Your task to perform on an android device: Go to Google Image 0: 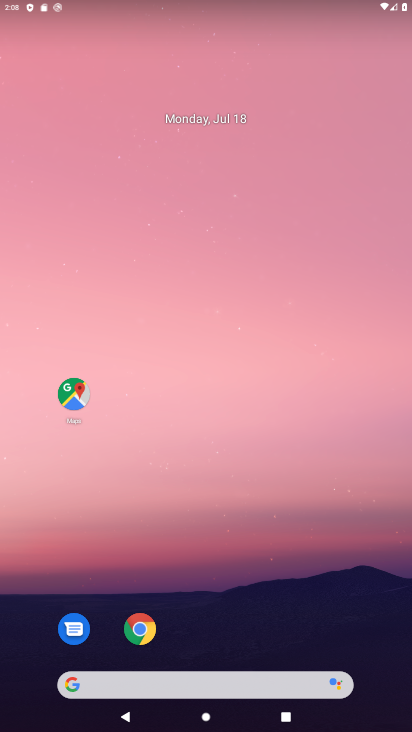
Step 0: drag from (226, 616) to (264, 215)
Your task to perform on an android device: Go to Google Image 1: 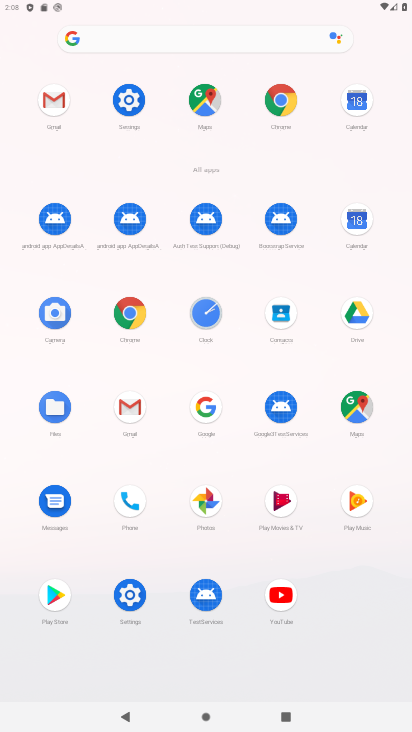
Step 1: click (214, 409)
Your task to perform on an android device: Go to Google Image 2: 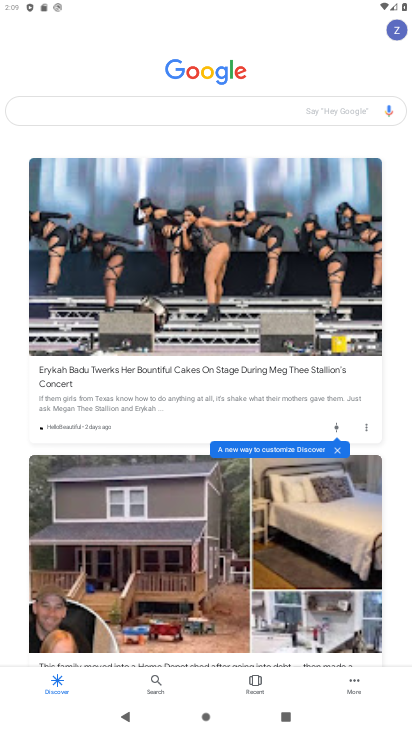
Step 2: task complete